Your task to perform on an android device: empty trash in google photos Image 0: 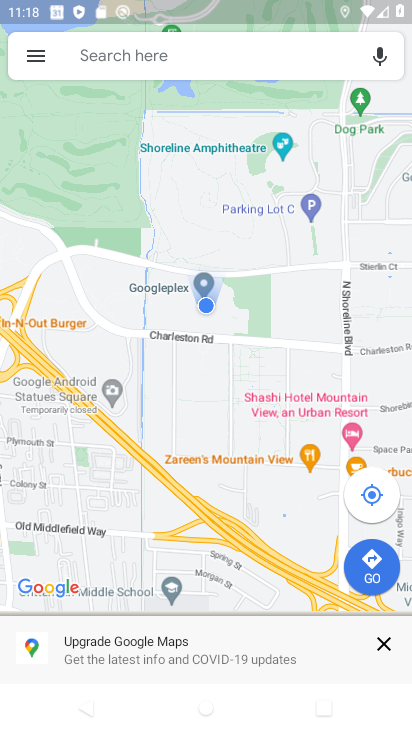
Step 0: press home button
Your task to perform on an android device: empty trash in google photos Image 1: 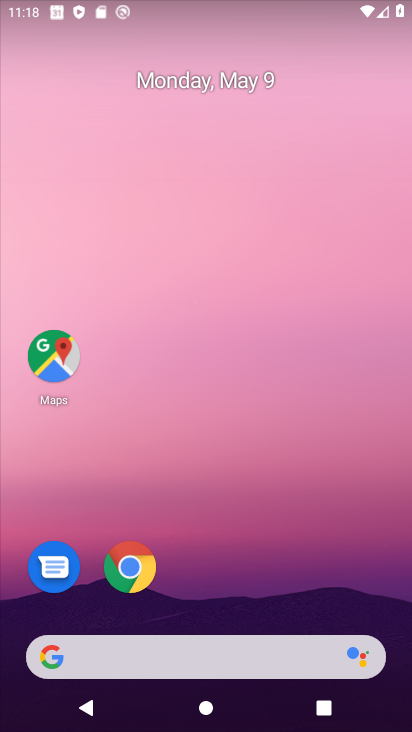
Step 1: drag from (375, 609) to (261, 78)
Your task to perform on an android device: empty trash in google photos Image 2: 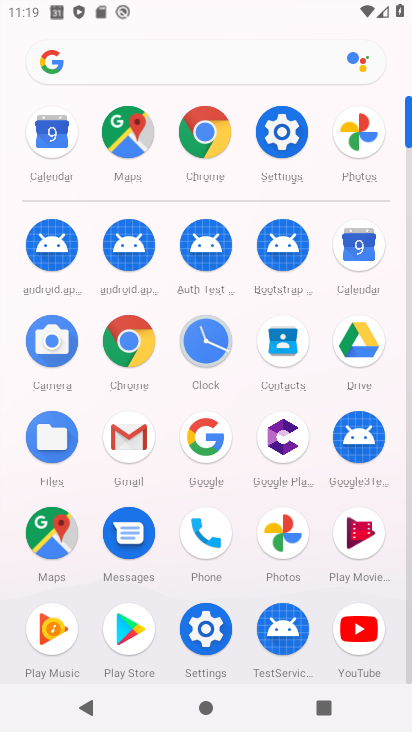
Step 2: click (293, 546)
Your task to perform on an android device: empty trash in google photos Image 3: 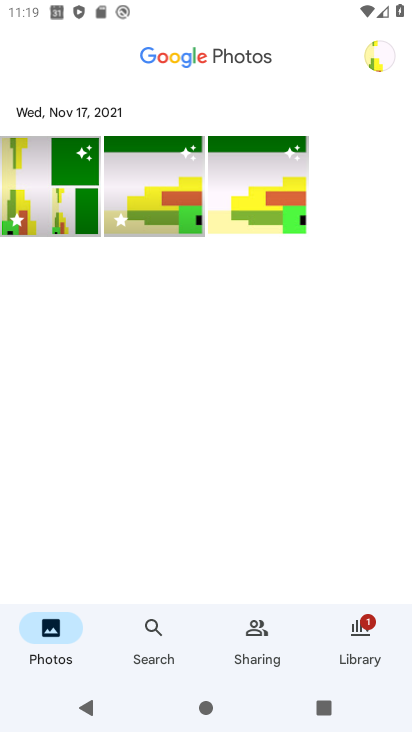
Step 3: click (350, 601)
Your task to perform on an android device: empty trash in google photos Image 4: 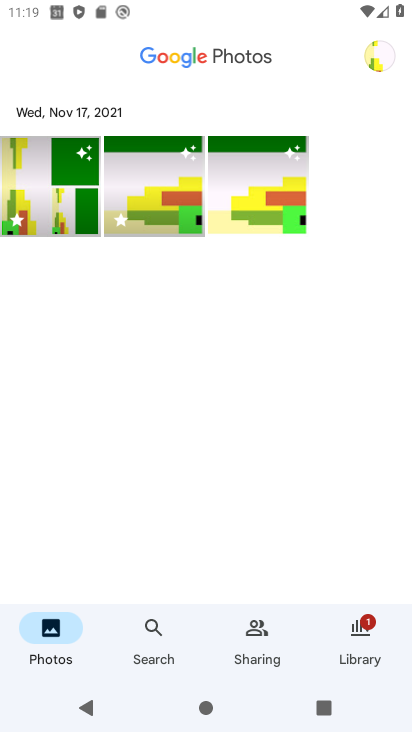
Step 4: click (347, 637)
Your task to perform on an android device: empty trash in google photos Image 5: 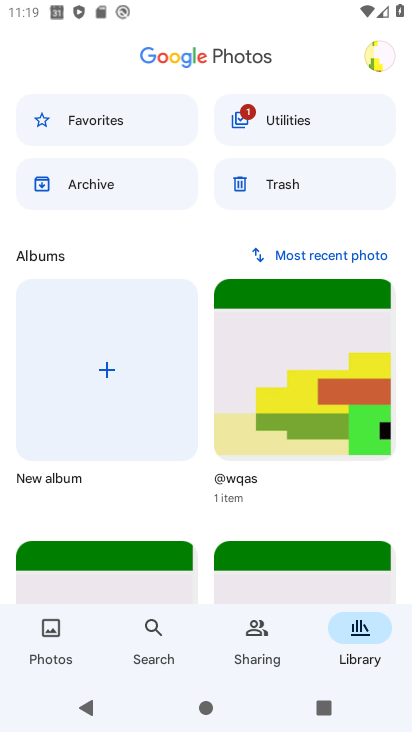
Step 5: click (301, 172)
Your task to perform on an android device: empty trash in google photos Image 6: 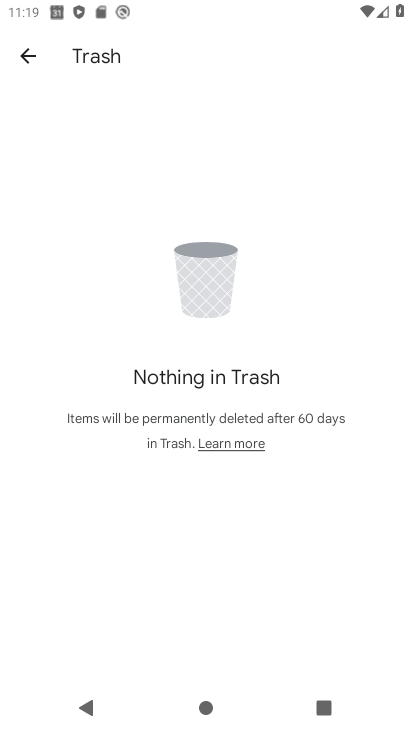
Step 6: task complete